Your task to perform on an android device: turn on the 24-hour format for clock Image 0: 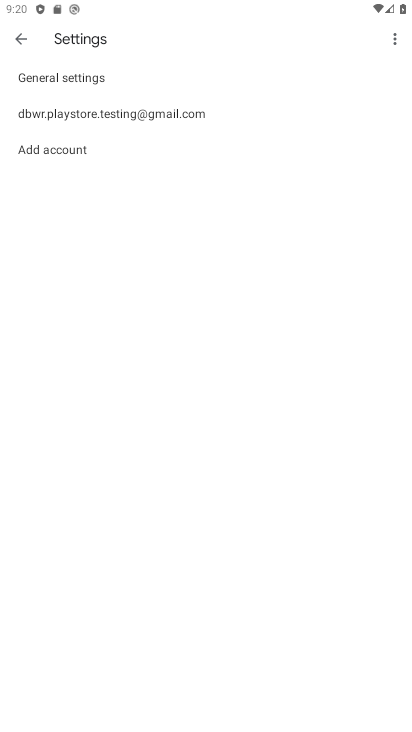
Step 0: press home button
Your task to perform on an android device: turn on the 24-hour format for clock Image 1: 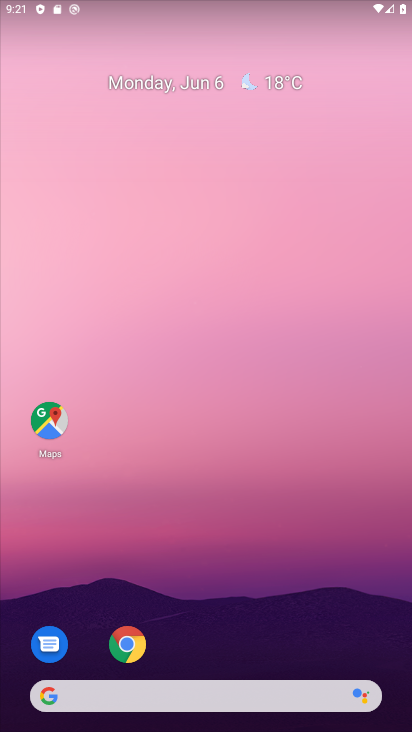
Step 1: drag from (335, 610) to (286, 118)
Your task to perform on an android device: turn on the 24-hour format for clock Image 2: 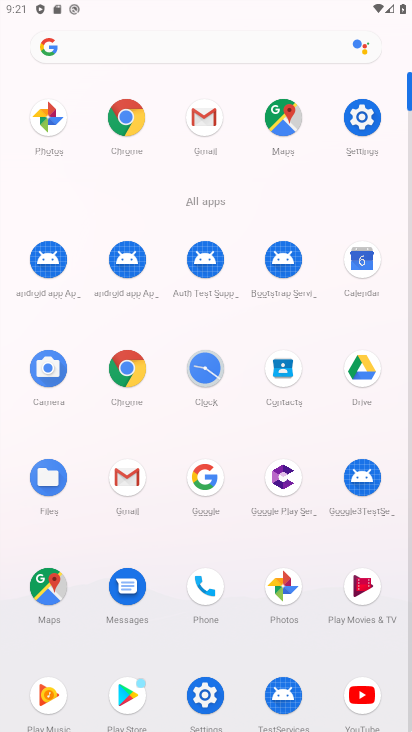
Step 2: click (195, 378)
Your task to perform on an android device: turn on the 24-hour format for clock Image 3: 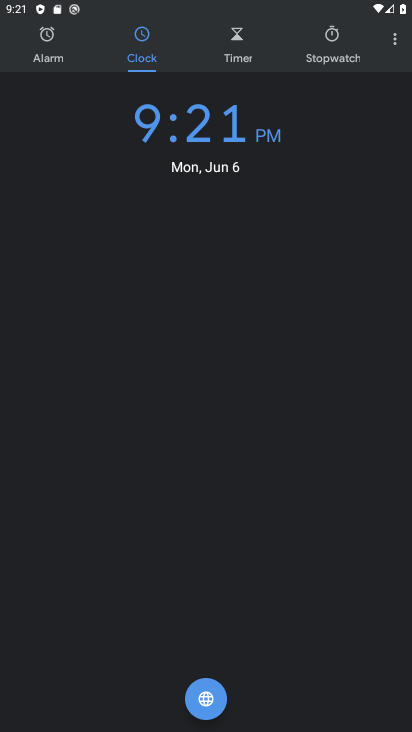
Step 3: click (402, 44)
Your task to perform on an android device: turn on the 24-hour format for clock Image 4: 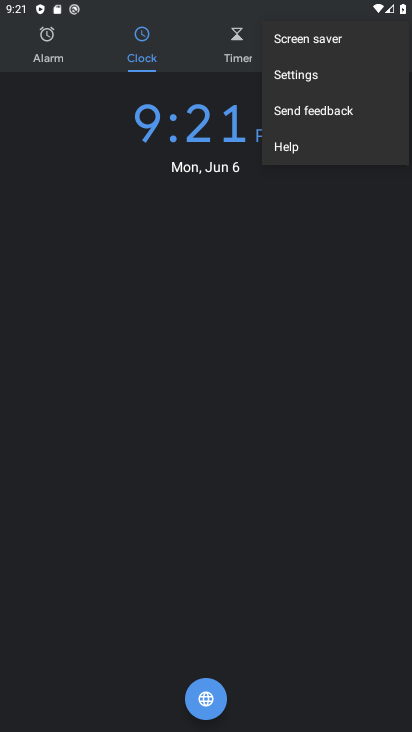
Step 4: click (332, 85)
Your task to perform on an android device: turn on the 24-hour format for clock Image 5: 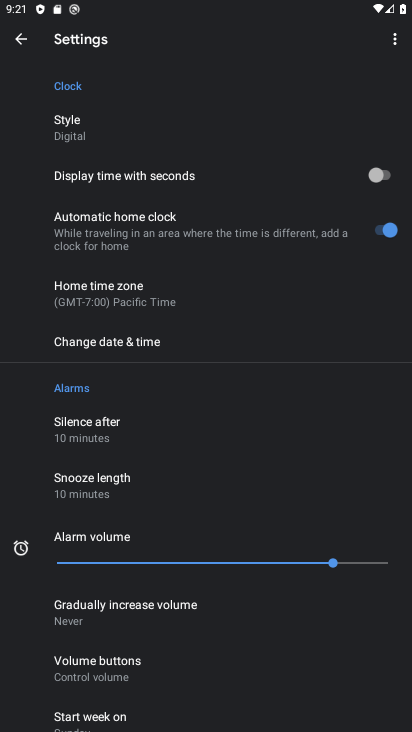
Step 5: drag from (245, 689) to (278, 372)
Your task to perform on an android device: turn on the 24-hour format for clock Image 6: 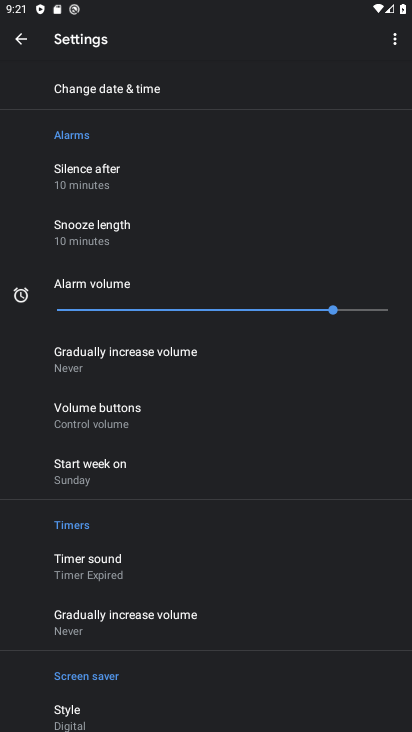
Step 6: drag from (277, 122) to (279, 511)
Your task to perform on an android device: turn on the 24-hour format for clock Image 7: 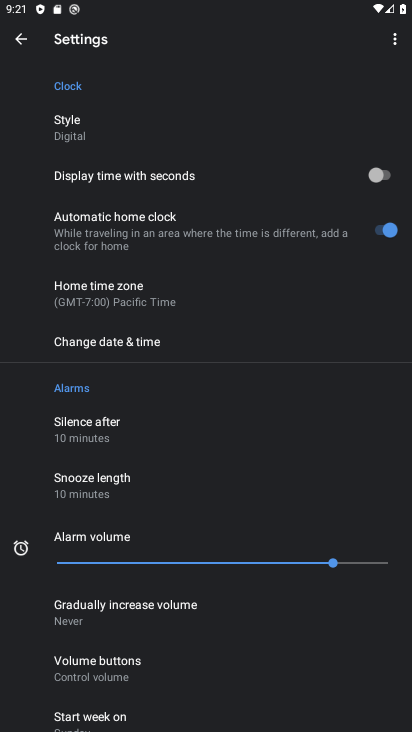
Step 7: click (197, 340)
Your task to perform on an android device: turn on the 24-hour format for clock Image 8: 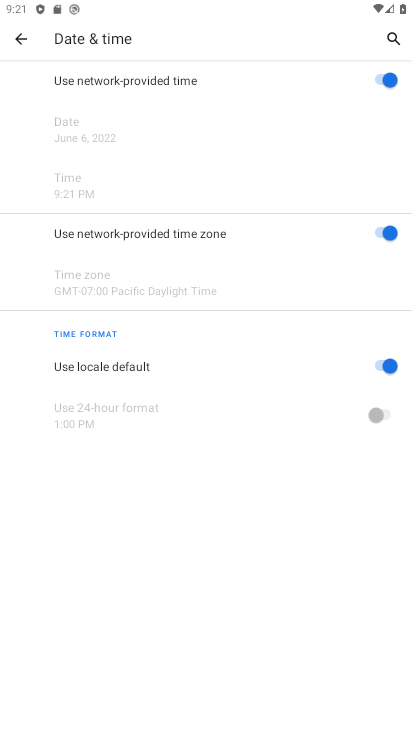
Step 8: click (383, 364)
Your task to perform on an android device: turn on the 24-hour format for clock Image 9: 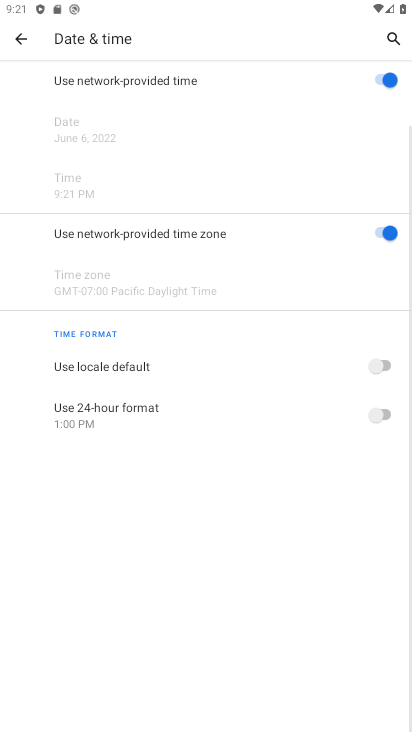
Step 9: click (392, 416)
Your task to perform on an android device: turn on the 24-hour format for clock Image 10: 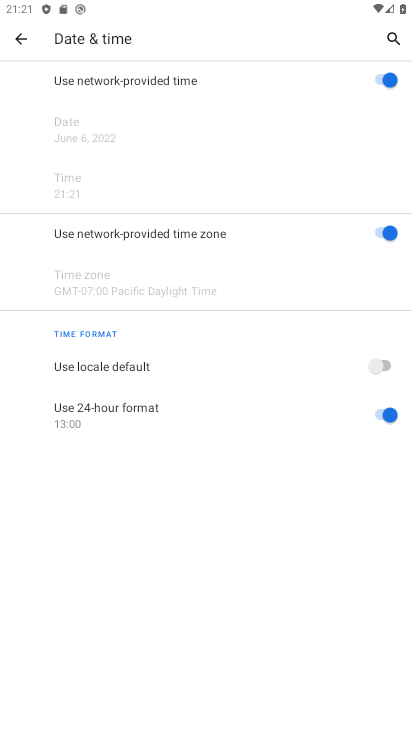
Step 10: task complete